Your task to perform on an android device: find snoozed emails in the gmail app Image 0: 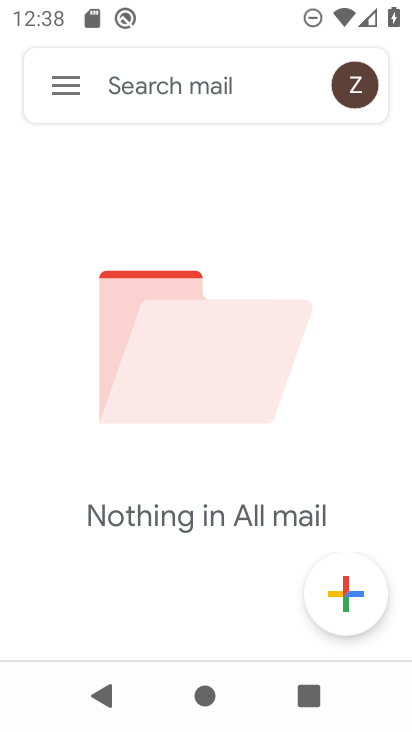
Step 0: click (70, 70)
Your task to perform on an android device: find snoozed emails in the gmail app Image 1: 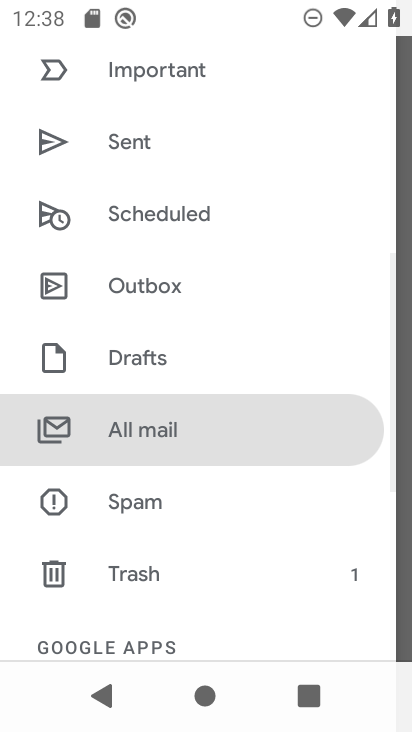
Step 1: drag from (186, 152) to (138, 629)
Your task to perform on an android device: find snoozed emails in the gmail app Image 2: 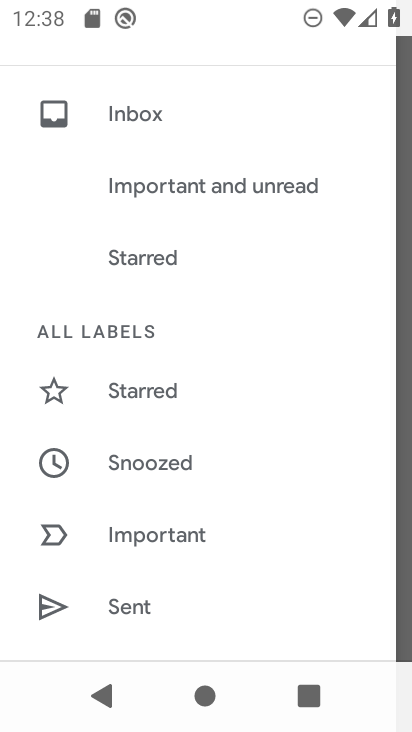
Step 2: click (127, 469)
Your task to perform on an android device: find snoozed emails in the gmail app Image 3: 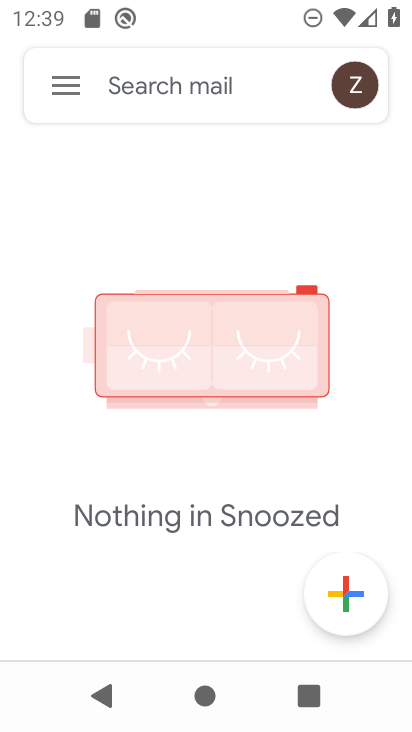
Step 3: task complete